Your task to perform on an android device: check out phone information Image 0: 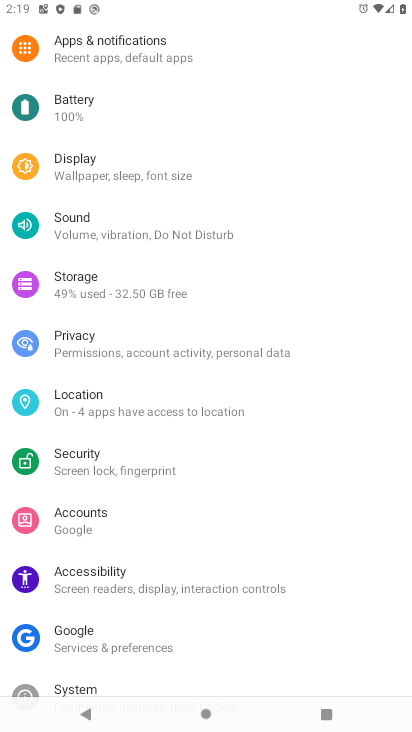
Step 0: press home button
Your task to perform on an android device: check out phone information Image 1: 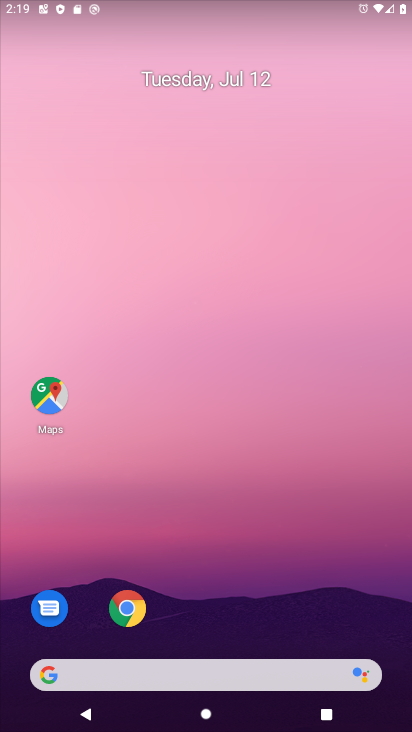
Step 1: drag from (269, 575) to (241, 3)
Your task to perform on an android device: check out phone information Image 2: 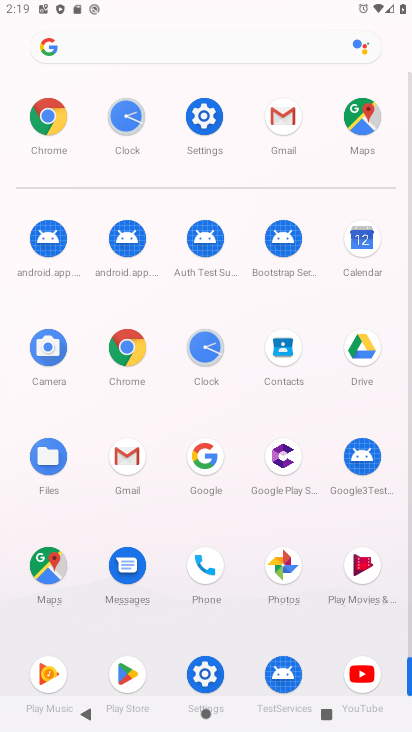
Step 2: click (206, 560)
Your task to perform on an android device: check out phone information Image 3: 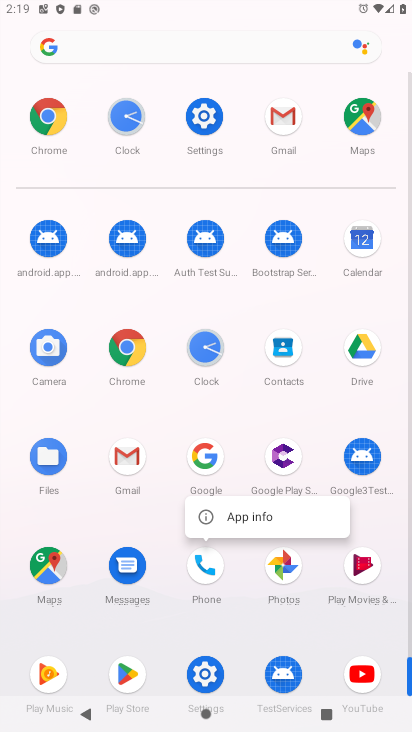
Step 3: click (273, 509)
Your task to perform on an android device: check out phone information Image 4: 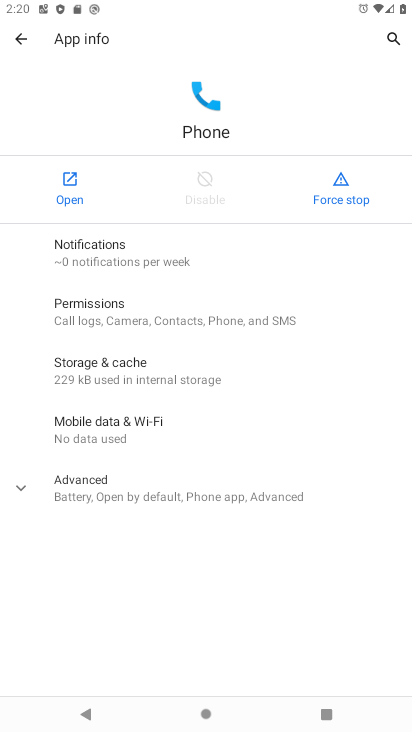
Step 4: click (93, 493)
Your task to perform on an android device: check out phone information Image 5: 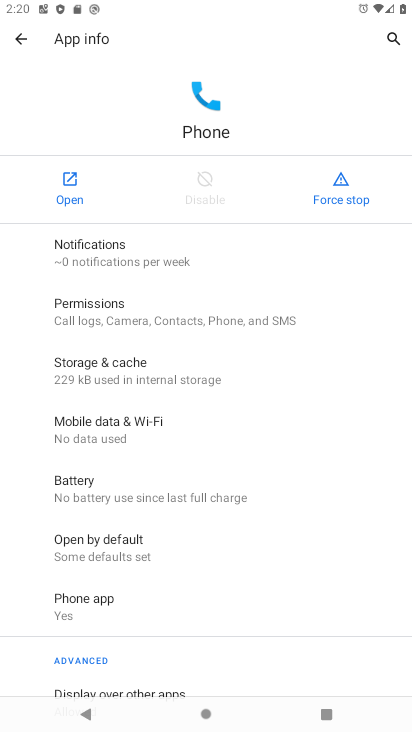
Step 5: task complete